Your task to perform on an android device: turn notification dots on Image 0: 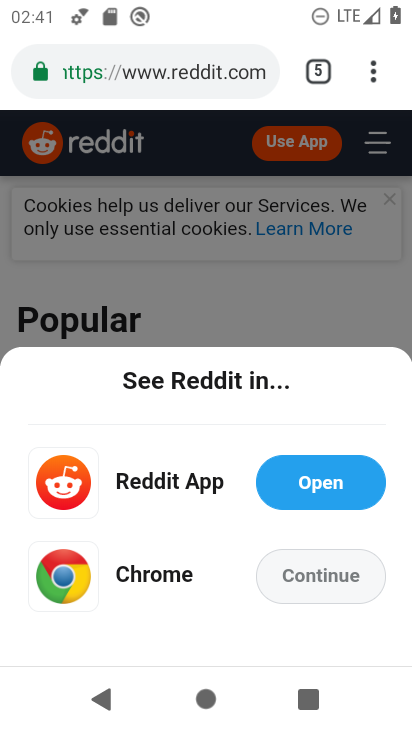
Step 0: press home button
Your task to perform on an android device: turn notification dots on Image 1: 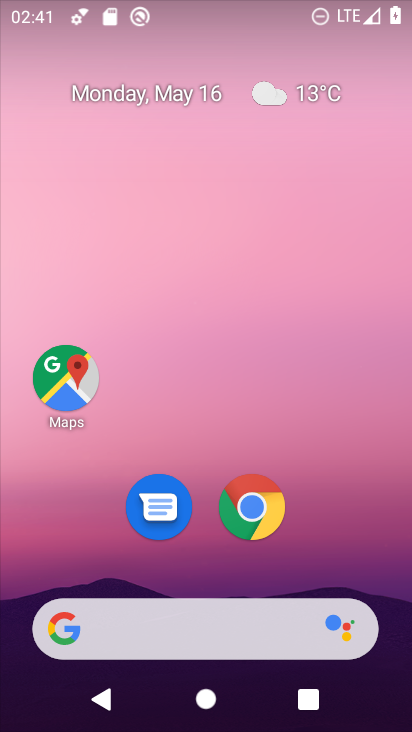
Step 1: drag from (319, 480) to (196, 66)
Your task to perform on an android device: turn notification dots on Image 2: 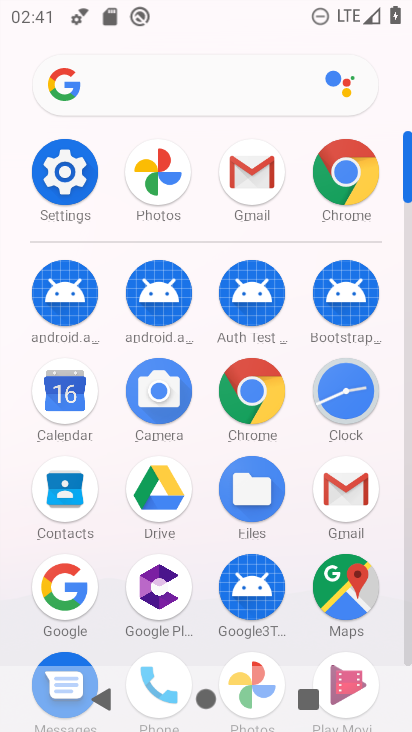
Step 2: click (82, 171)
Your task to perform on an android device: turn notification dots on Image 3: 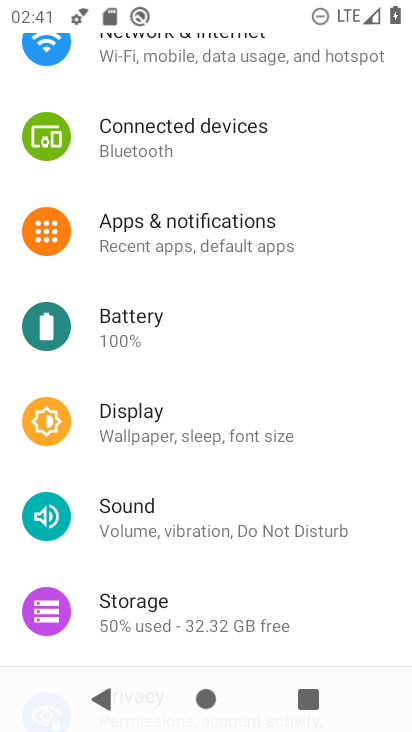
Step 3: click (196, 231)
Your task to perform on an android device: turn notification dots on Image 4: 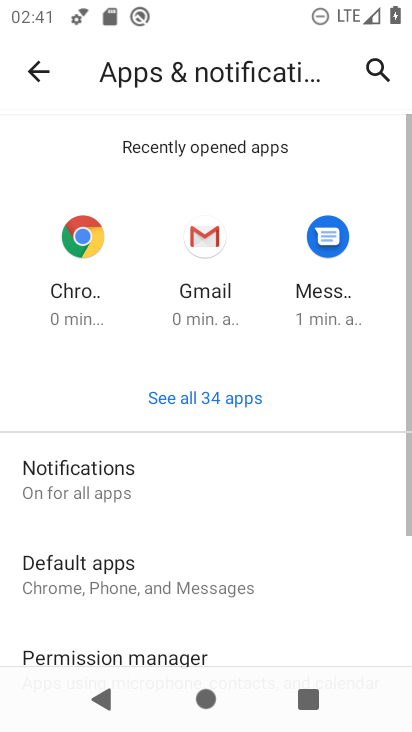
Step 4: drag from (261, 563) to (213, 266)
Your task to perform on an android device: turn notification dots on Image 5: 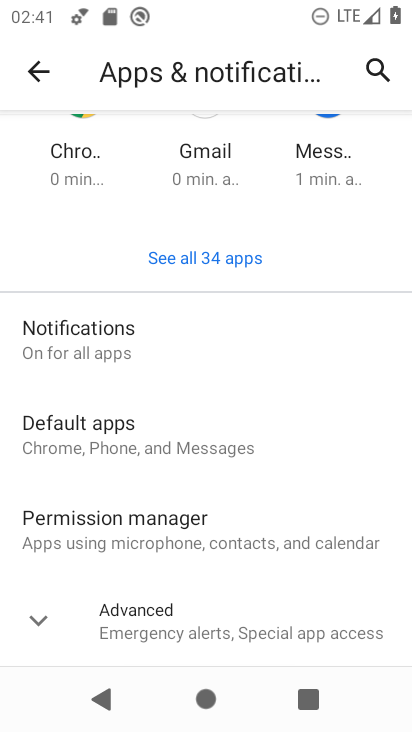
Step 5: click (204, 310)
Your task to perform on an android device: turn notification dots on Image 6: 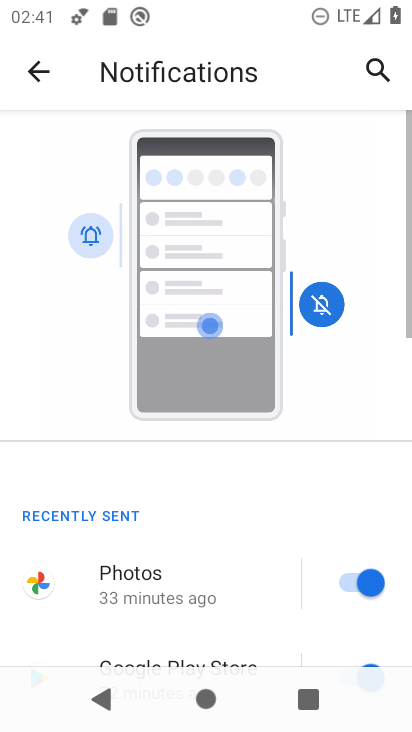
Step 6: drag from (267, 510) to (224, 95)
Your task to perform on an android device: turn notification dots on Image 7: 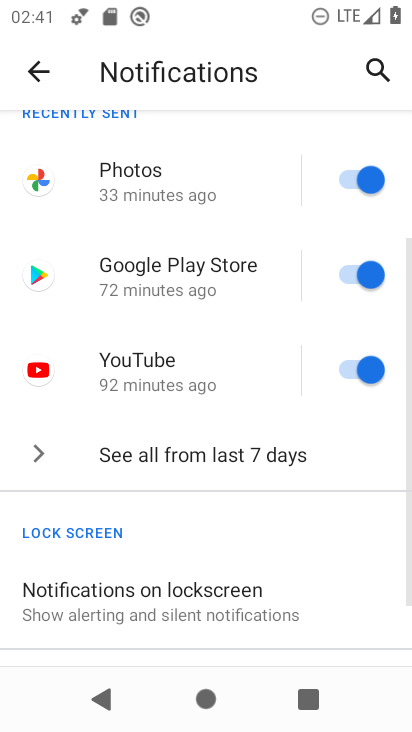
Step 7: drag from (233, 461) to (227, 136)
Your task to perform on an android device: turn notification dots on Image 8: 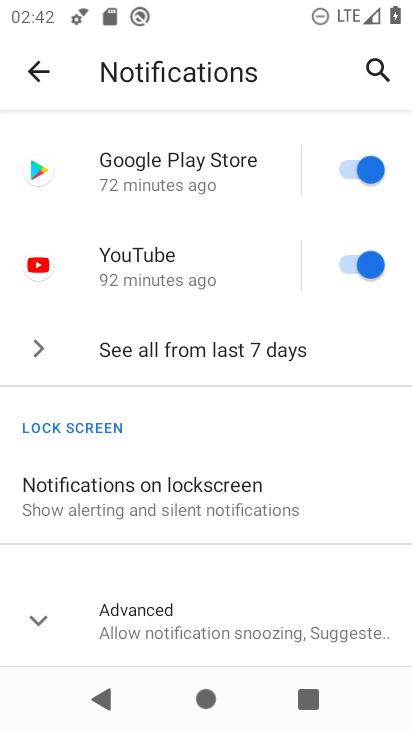
Step 8: click (210, 603)
Your task to perform on an android device: turn notification dots on Image 9: 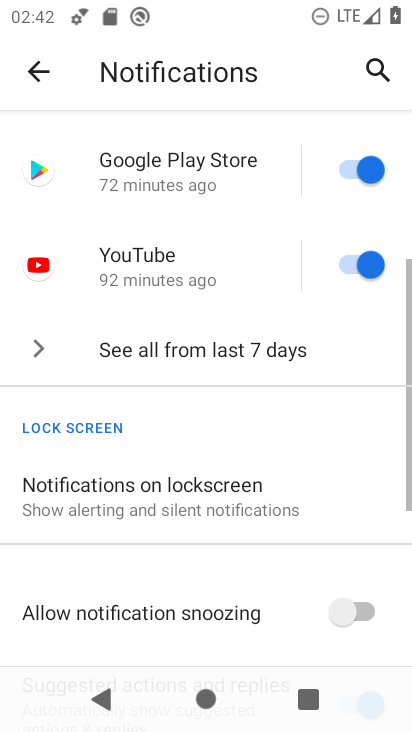
Step 9: drag from (244, 493) to (228, 113)
Your task to perform on an android device: turn notification dots on Image 10: 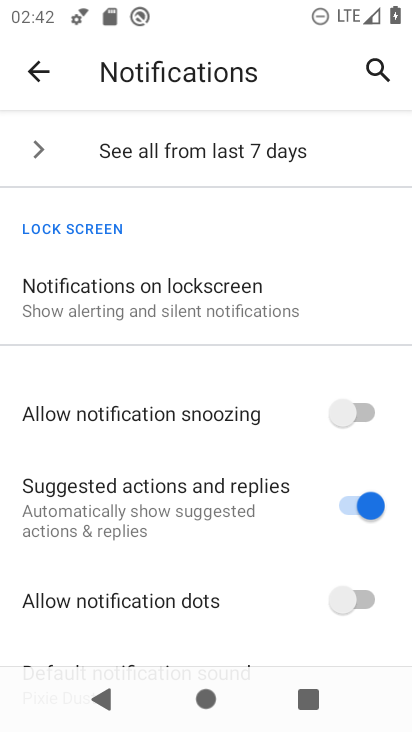
Step 10: click (360, 594)
Your task to perform on an android device: turn notification dots on Image 11: 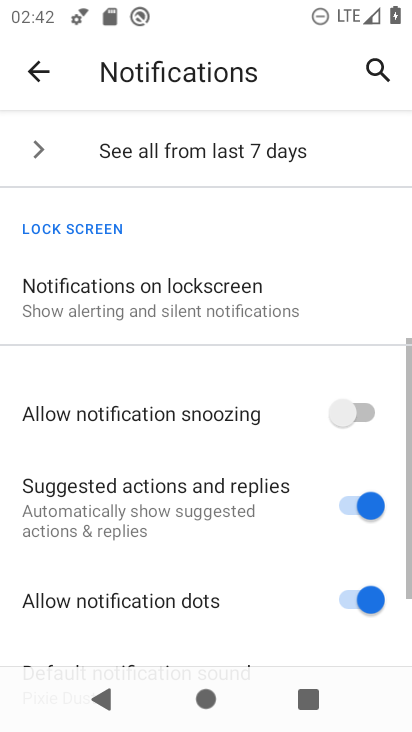
Step 11: task complete